Your task to perform on an android device: Open maps Image 0: 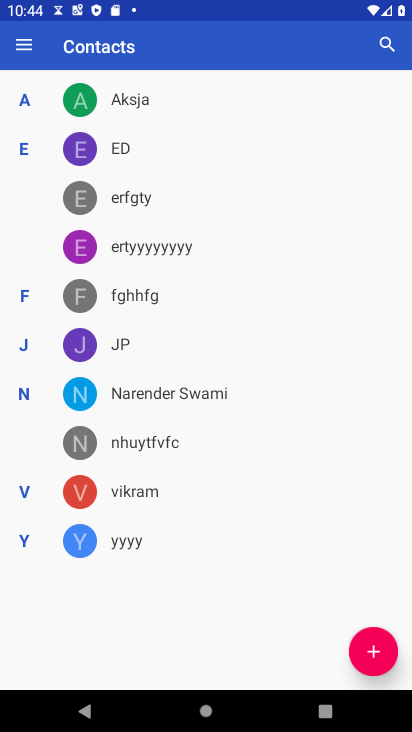
Step 0: press home button
Your task to perform on an android device: Open maps Image 1: 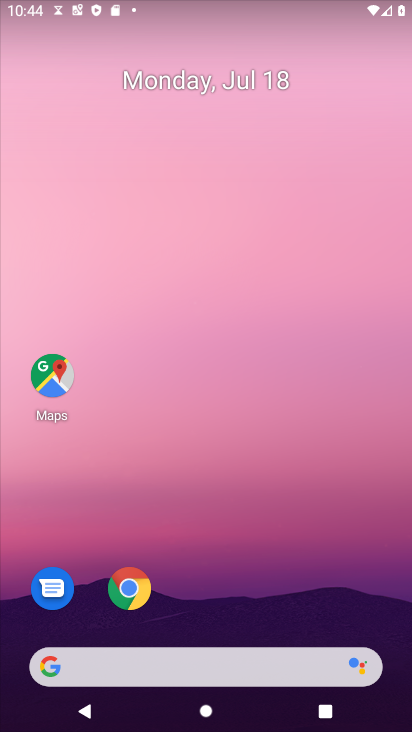
Step 1: drag from (244, 674) to (250, 76)
Your task to perform on an android device: Open maps Image 2: 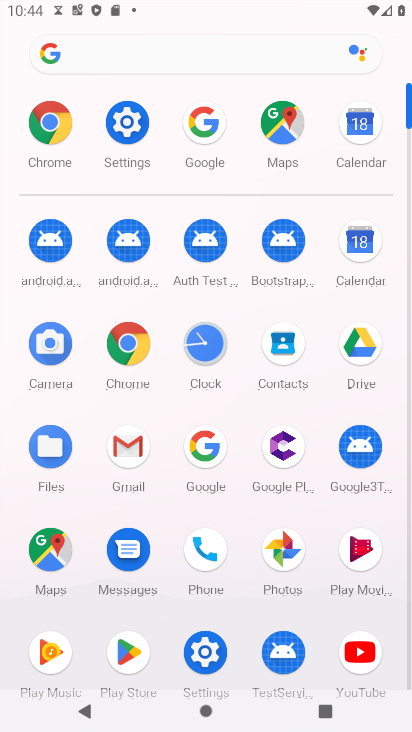
Step 2: click (46, 548)
Your task to perform on an android device: Open maps Image 3: 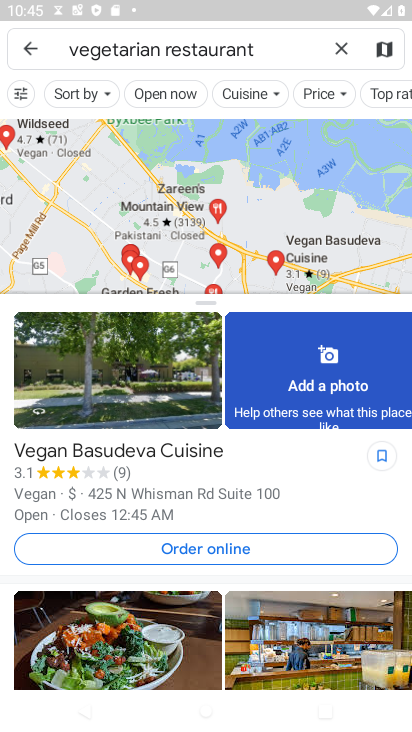
Step 3: task complete